Your task to perform on an android device: Open Wikipedia Image 0: 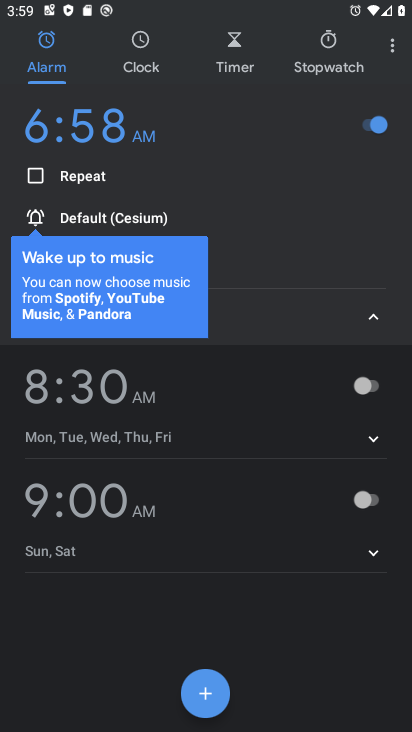
Step 0: press home button
Your task to perform on an android device: Open Wikipedia Image 1: 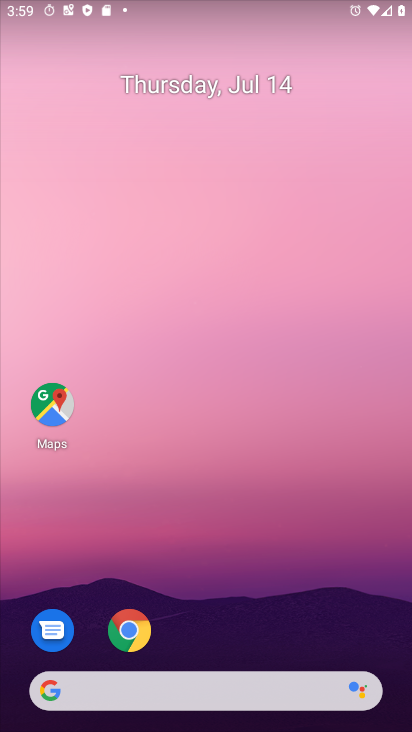
Step 1: drag from (247, 710) to (273, 204)
Your task to perform on an android device: Open Wikipedia Image 2: 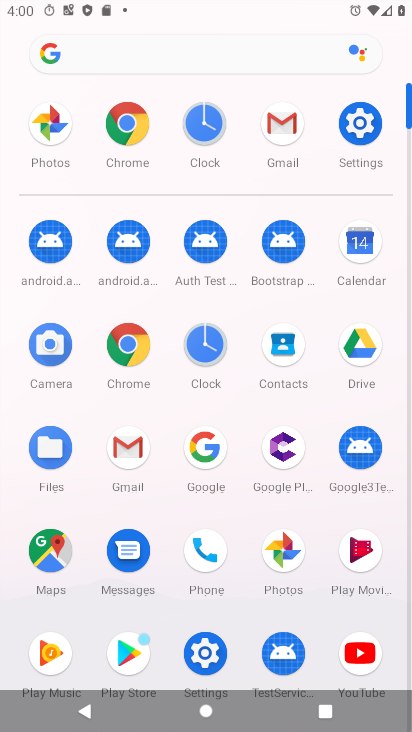
Step 2: click (129, 123)
Your task to perform on an android device: Open Wikipedia Image 3: 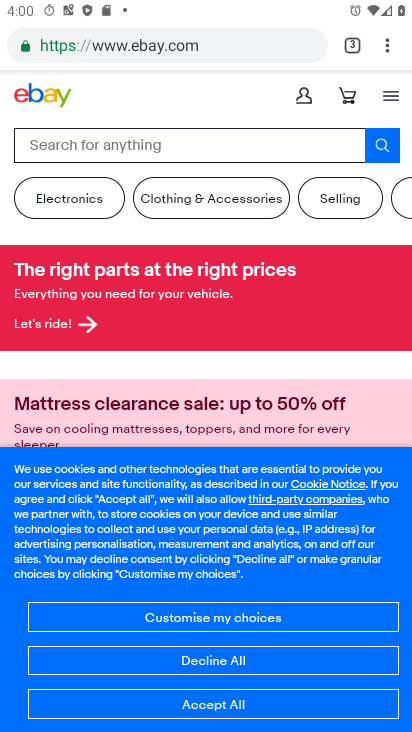
Step 3: click (387, 42)
Your task to perform on an android device: Open Wikipedia Image 4: 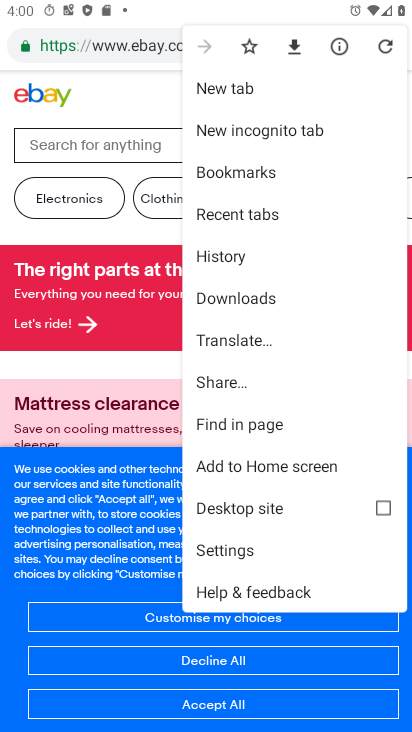
Step 4: click (219, 86)
Your task to perform on an android device: Open Wikipedia Image 5: 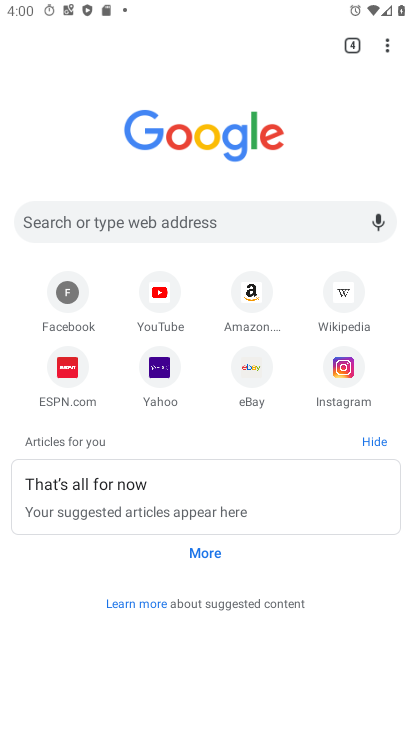
Step 5: click (342, 289)
Your task to perform on an android device: Open Wikipedia Image 6: 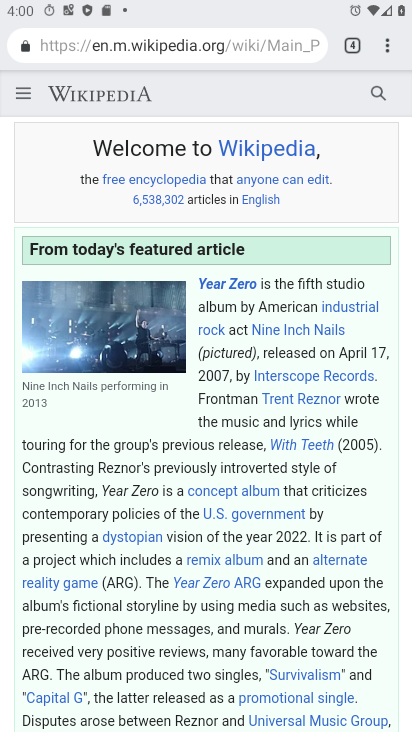
Step 6: task complete